Your task to perform on an android device: Go to Google Image 0: 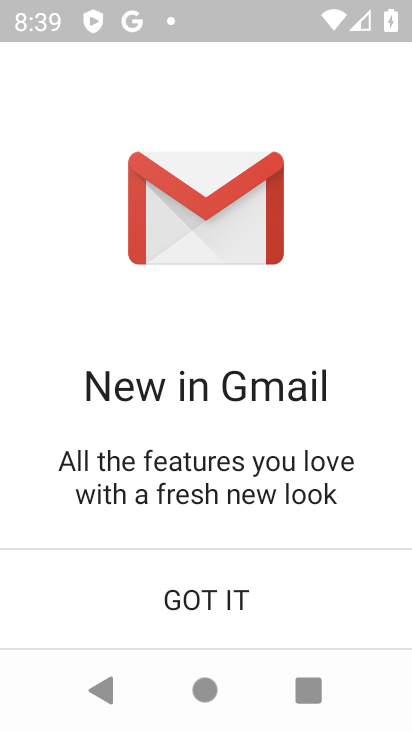
Step 0: press home button
Your task to perform on an android device: Go to Google Image 1: 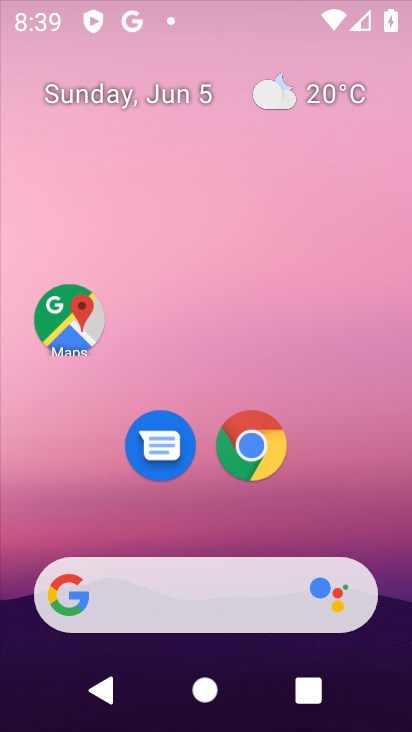
Step 1: drag from (239, 623) to (324, 32)
Your task to perform on an android device: Go to Google Image 2: 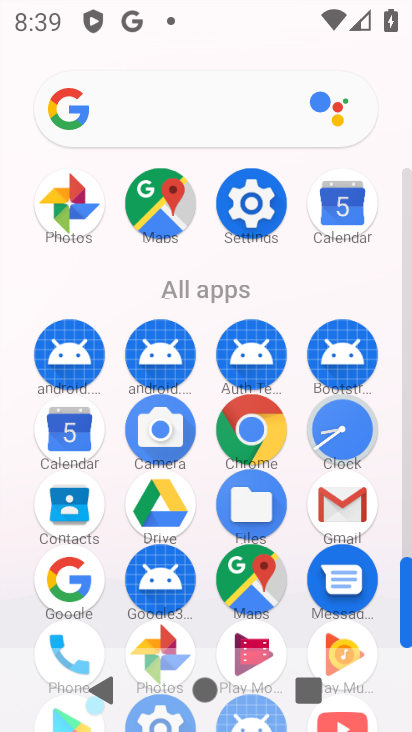
Step 2: click (254, 411)
Your task to perform on an android device: Go to Google Image 3: 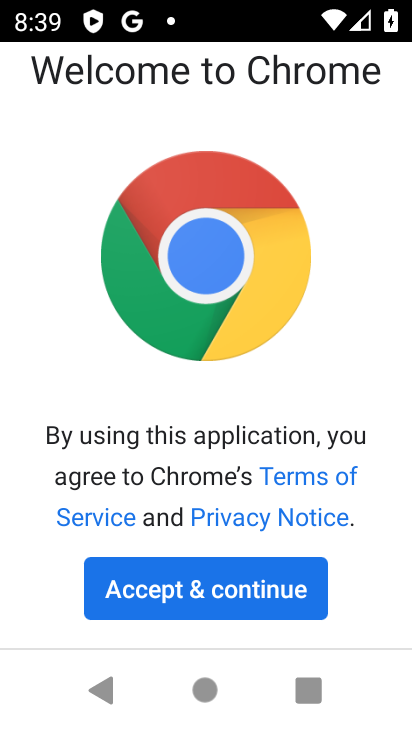
Step 3: click (240, 593)
Your task to perform on an android device: Go to Google Image 4: 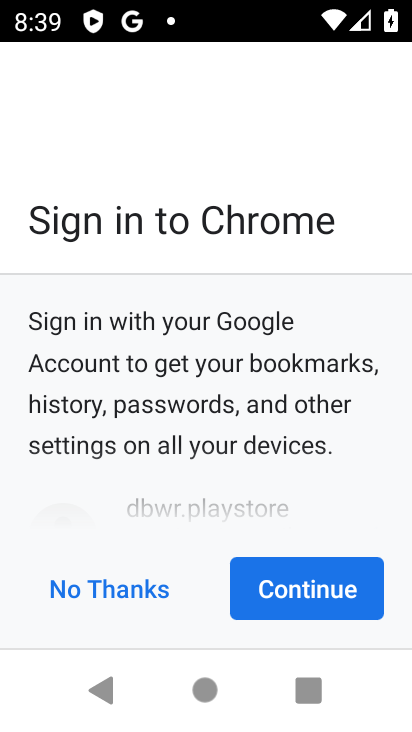
Step 4: click (145, 600)
Your task to perform on an android device: Go to Google Image 5: 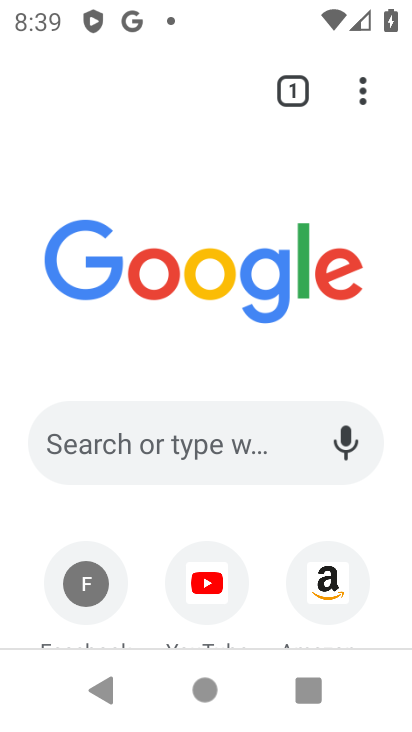
Step 5: task complete